Your task to perform on an android device: open chrome and create a bookmark for the current page Image 0: 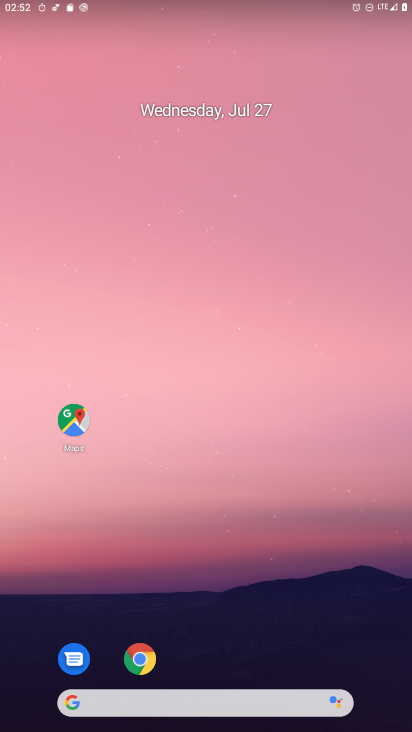
Step 0: drag from (305, 596) to (313, 116)
Your task to perform on an android device: open chrome and create a bookmark for the current page Image 1: 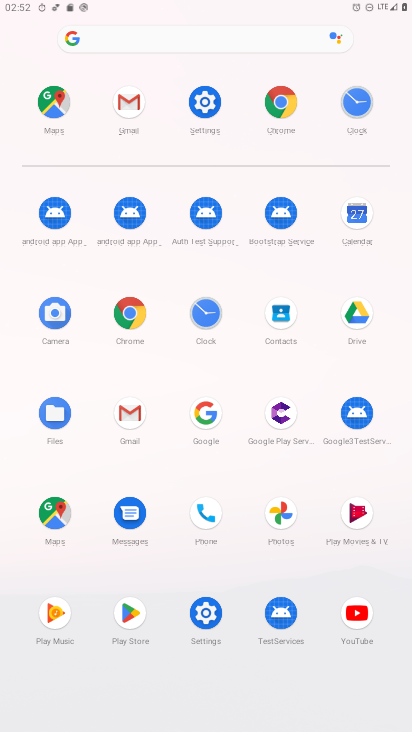
Step 1: click (273, 107)
Your task to perform on an android device: open chrome and create a bookmark for the current page Image 2: 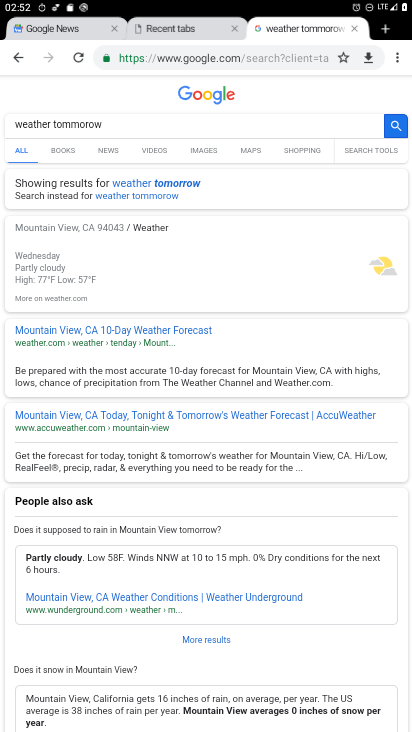
Step 2: click (343, 58)
Your task to perform on an android device: open chrome and create a bookmark for the current page Image 3: 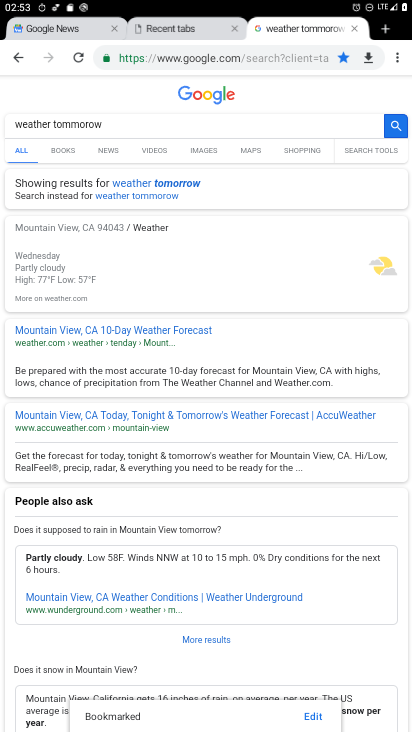
Step 3: task complete